Your task to perform on an android device: find snoozed emails in the gmail app Image 0: 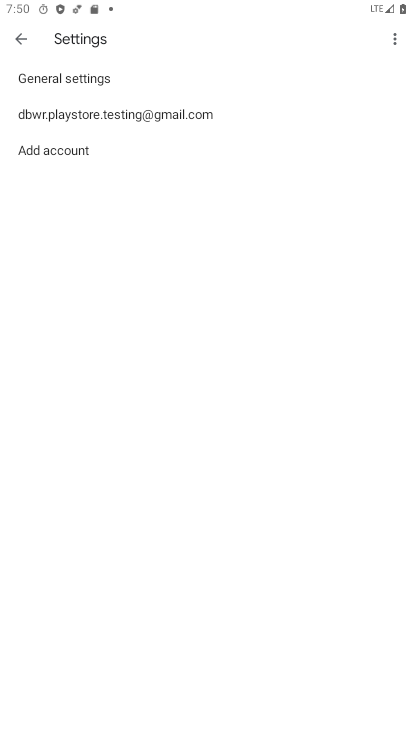
Step 0: click (24, 43)
Your task to perform on an android device: find snoozed emails in the gmail app Image 1: 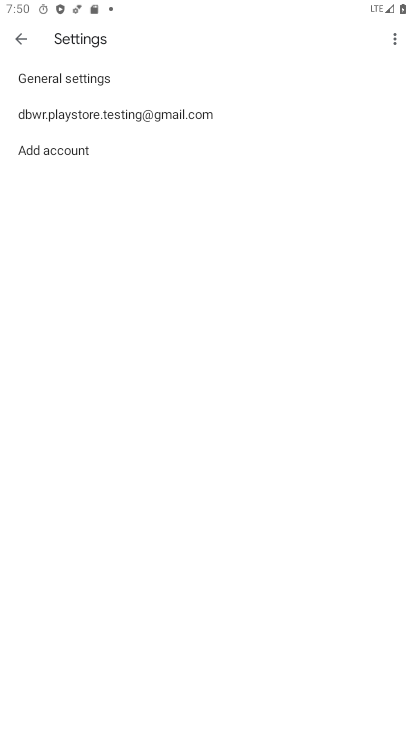
Step 1: click (17, 48)
Your task to perform on an android device: find snoozed emails in the gmail app Image 2: 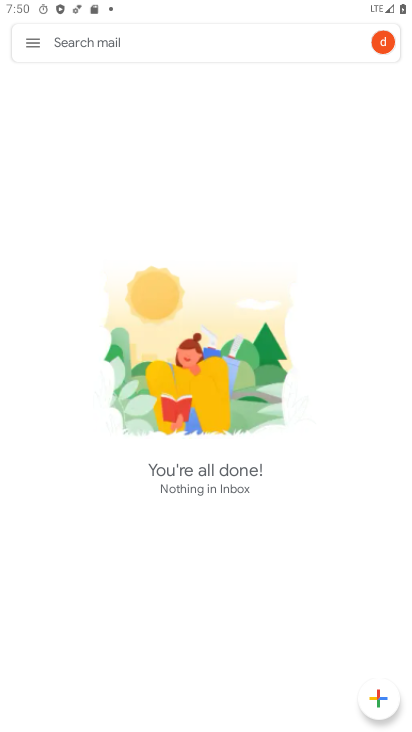
Step 2: click (23, 47)
Your task to perform on an android device: find snoozed emails in the gmail app Image 3: 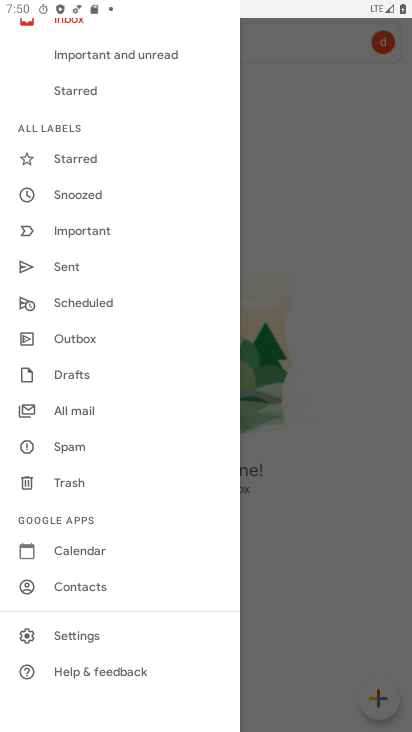
Step 3: click (85, 194)
Your task to perform on an android device: find snoozed emails in the gmail app Image 4: 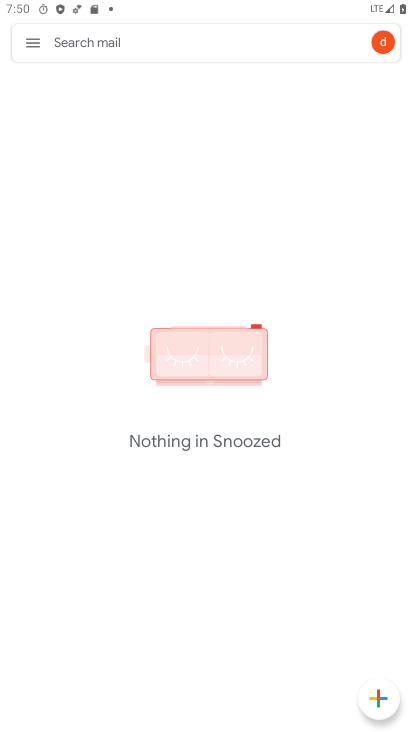
Step 4: task complete